Your task to perform on an android device: turn off priority inbox in the gmail app Image 0: 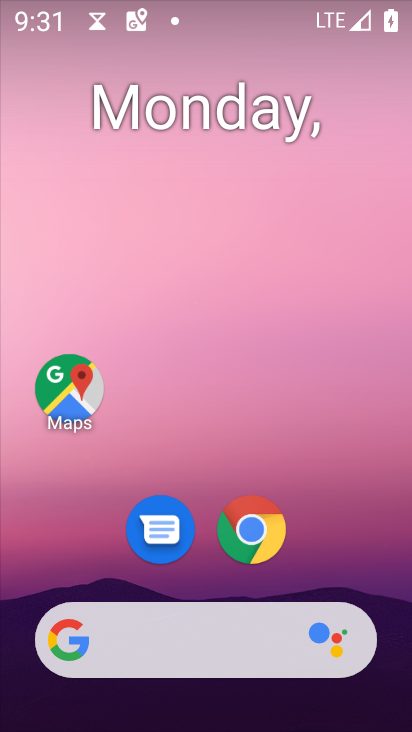
Step 0: drag from (250, 703) to (211, 33)
Your task to perform on an android device: turn off priority inbox in the gmail app Image 1: 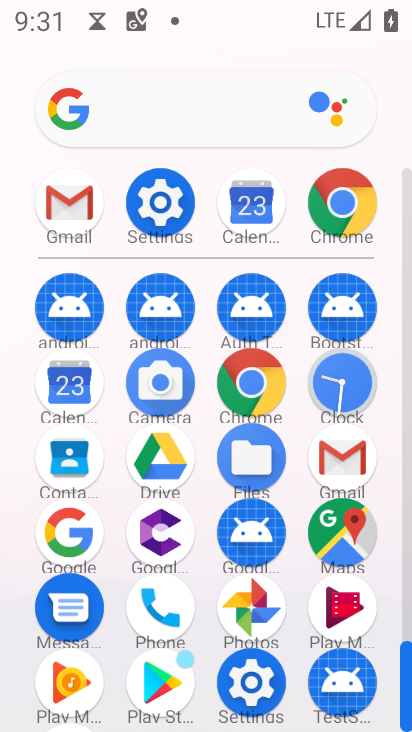
Step 1: click (353, 463)
Your task to perform on an android device: turn off priority inbox in the gmail app Image 2: 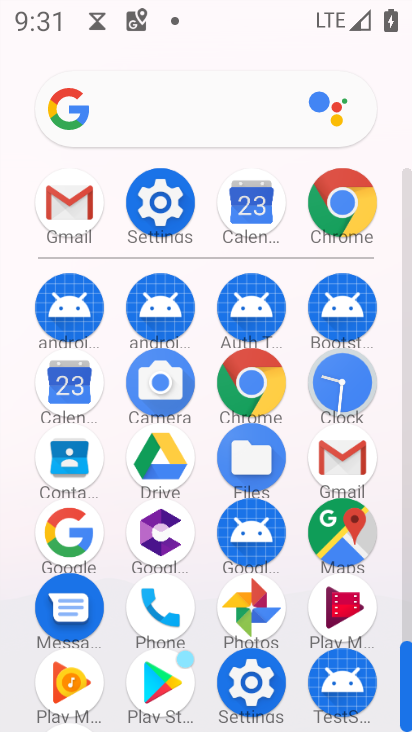
Step 2: click (361, 451)
Your task to perform on an android device: turn off priority inbox in the gmail app Image 3: 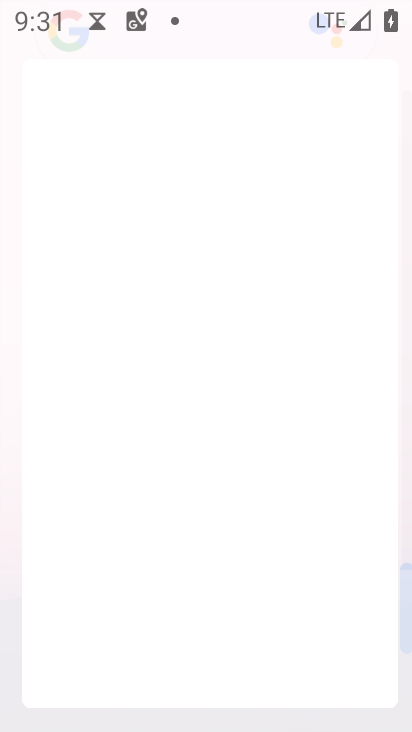
Step 3: click (362, 450)
Your task to perform on an android device: turn off priority inbox in the gmail app Image 4: 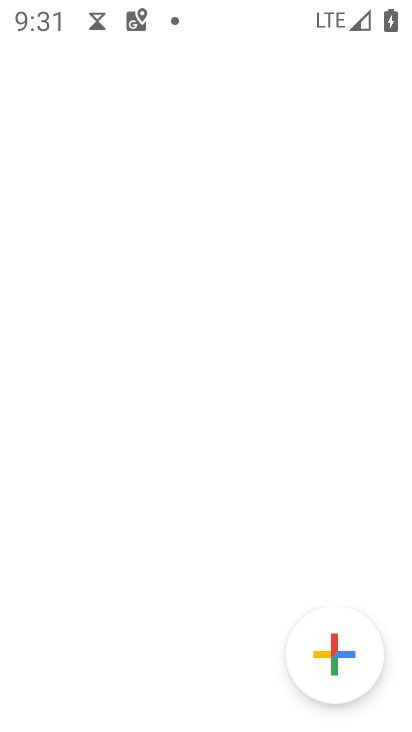
Step 4: click (362, 450)
Your task to perform on an android device: turn off priority inbox in the gmail app Image 5: 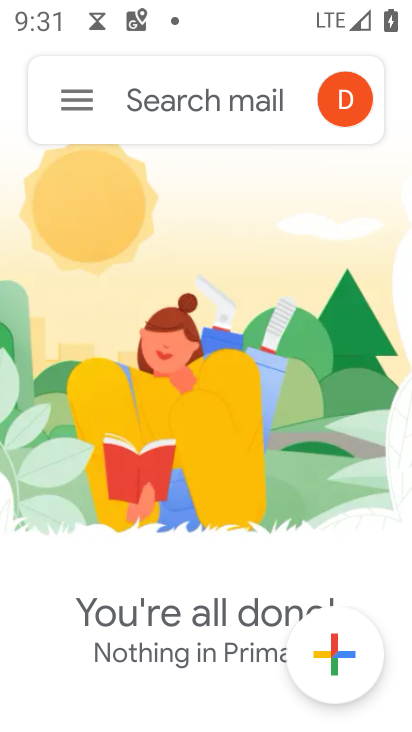
Step 5: drag from (81, 105) to (78, 339)
Your task to perform on an android device: turn off priority inbox in the gmail app Image 6: 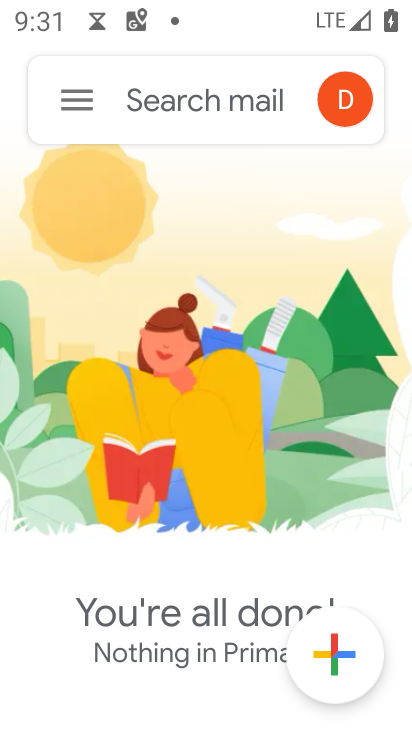
Step 6: click (86, 101)
Your task to perform on an android device: turn off priority inbox in the gmail app Image 7: 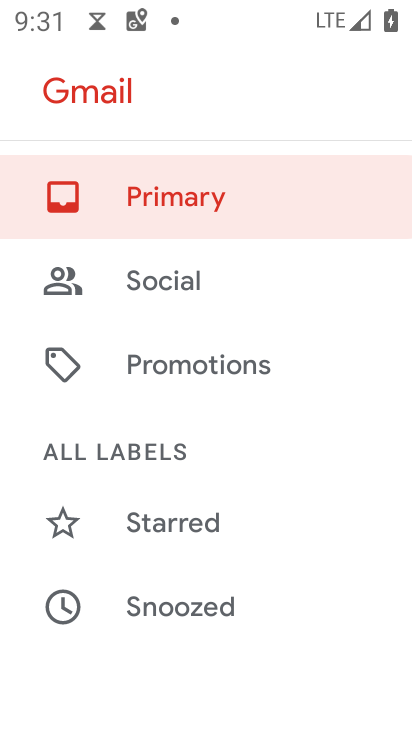
Step 7: click (87, 111)
Your task to perform on an android device: turn off priority inbox in the gmail app Image 8: 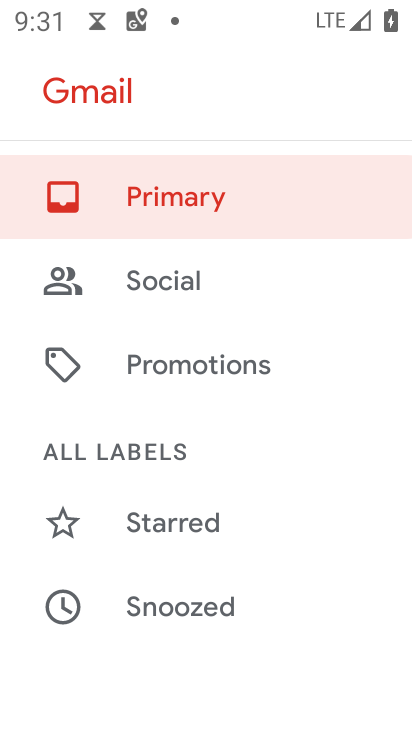
Step 8: drag from (199, 615) to (189, 225)
Your task to perform on an android device: turn off priority inbox in the gmail app Image 9: 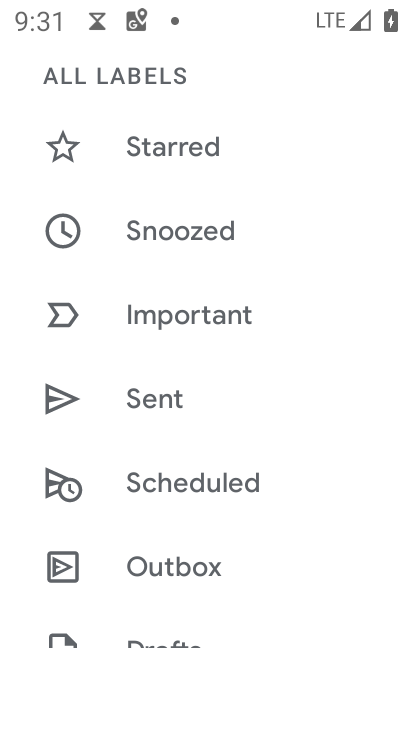
Step 9: drag from (224, 487) to (250, 115)
Your task to perform on an android device: turn off priority inbox in the gmail app Image 10: 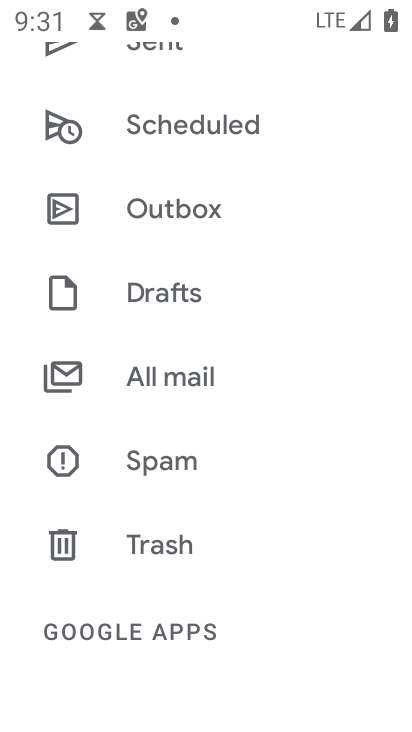
Step 10: drag from (175, 580) to (194, 52)
Your task to perform on an android device: turn off priority inbox in the gmail app Image 11: 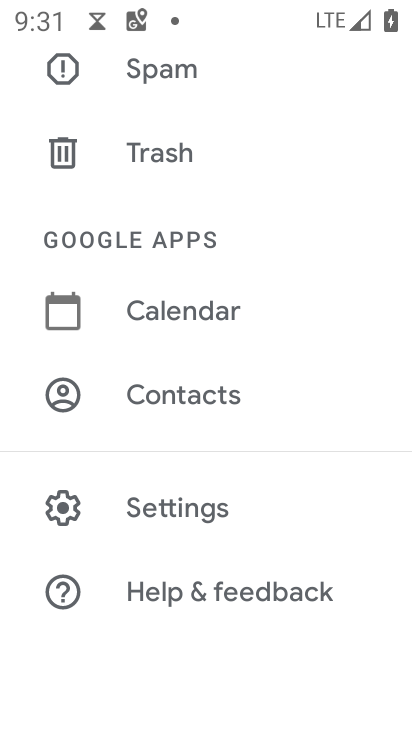
Step 11: drag from (211, 447) to (280, 23)
Your task to perform on an android device: turn off priority inbox in the gmail app Image 12: 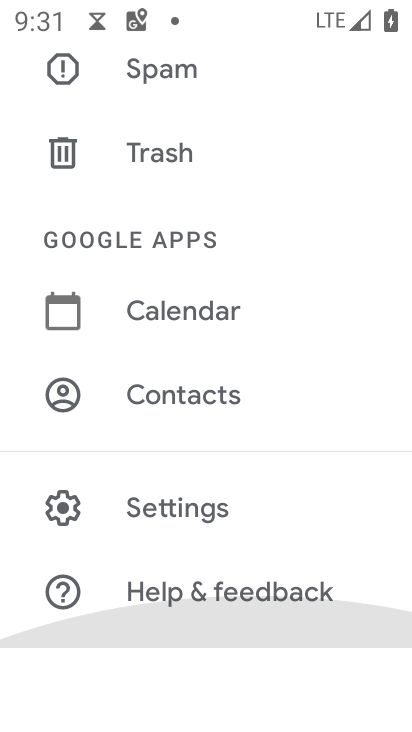
Step 12: drag from (224, 361) to (224, 48)
Your task to perform on an android device: turn off priority inbox in the gmail app Image 13: 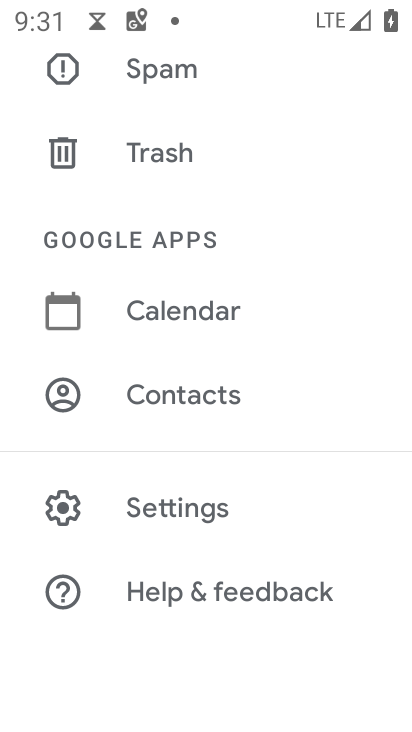
Step 13: click (165, 509)
Your task to perform on an android device: turn off priority inbox in the gmail app Image 14: 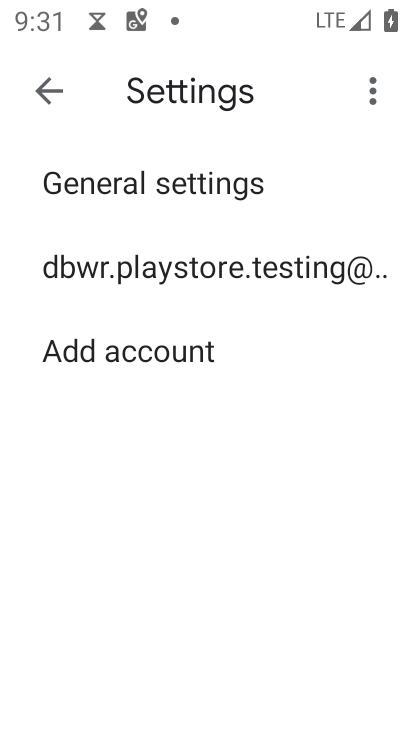
Step 14: click (192, 271)
Your task to perform on an android device: turn off priority inbox in the gmail app Image 15: 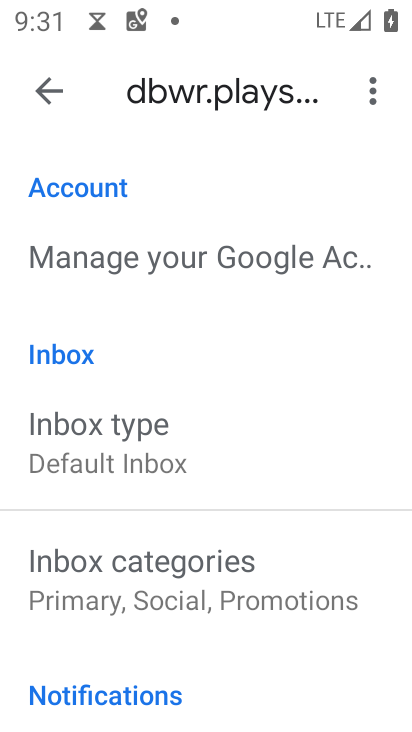
Step 15: click (122, 458)
Your task to perform on an android device: turn off priority inbox in the gmail app Image 16: 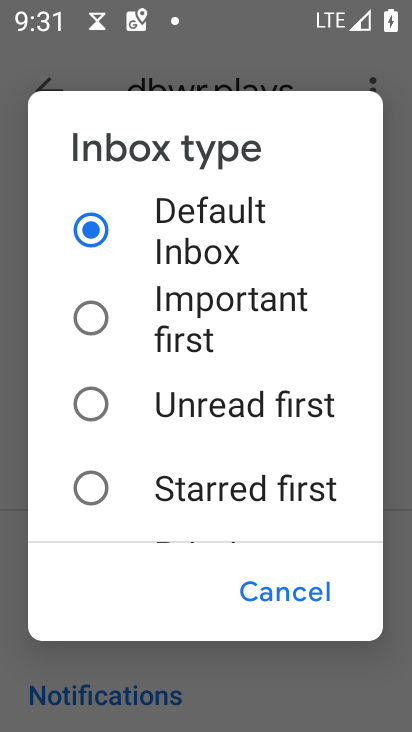
Step 16: drag from (138, 445) to (157, 203)
Your task to perform on an android device: turn off priority inbox in the gmail app Image 17: 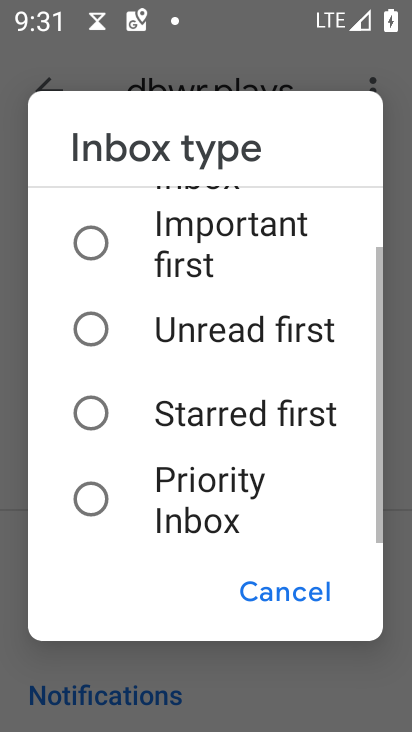
Step 17: drag from (190, 434) to (194, 206)
Your task to perform on an android device: turn off priority inbox in the gmail app Image 18: 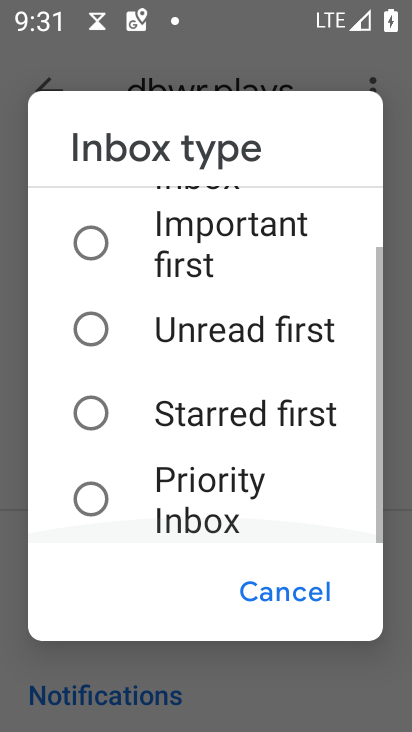
Step 18: drag from (183, 424) to (222, 179)
Your task to perform on an android device: turn off priority inbox in the gmail app Image 19: 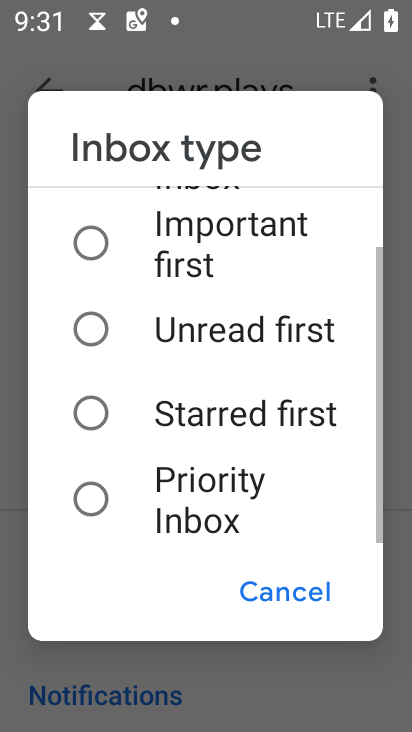
Step 19: click (90, 503)
Your task to perform on an android device: turn off priority inbox in the gmail app Image 20: 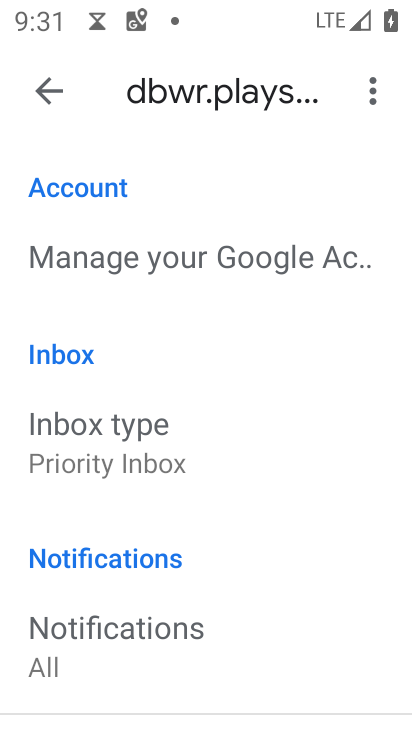
Step 20: click (88, 455)
Your task to perform on an android device: turn off priority inbox in the gmail app Image 21: 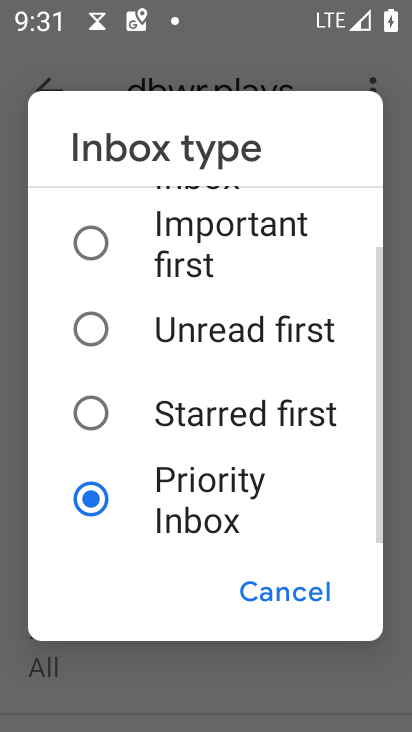
Step 21: click (77, 237)
Your task to perform on an android device: turn off priority inbox in the gmail app Image 22: 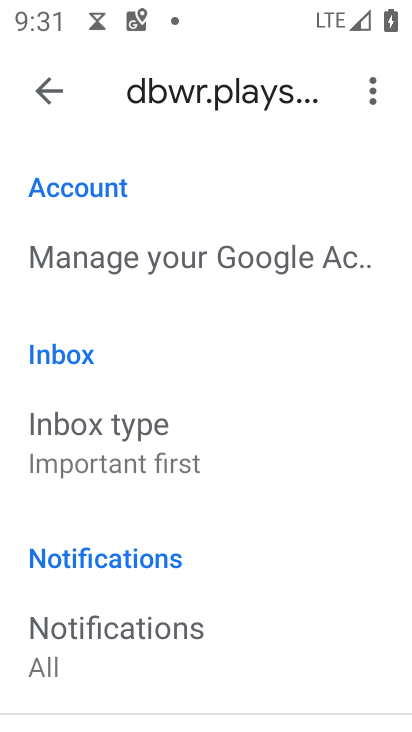
Step 22: task complete